Your task to perform on an android device: Do I have any events today? Image 0: 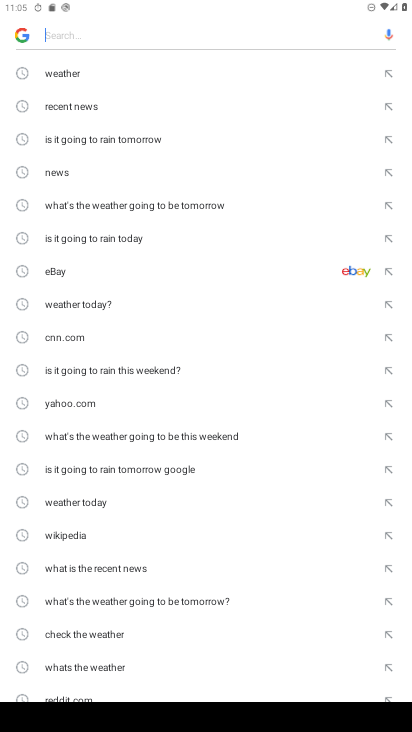
Step 0: press home button
Your task to perform on an android device: Do I have any events today? Image 1: 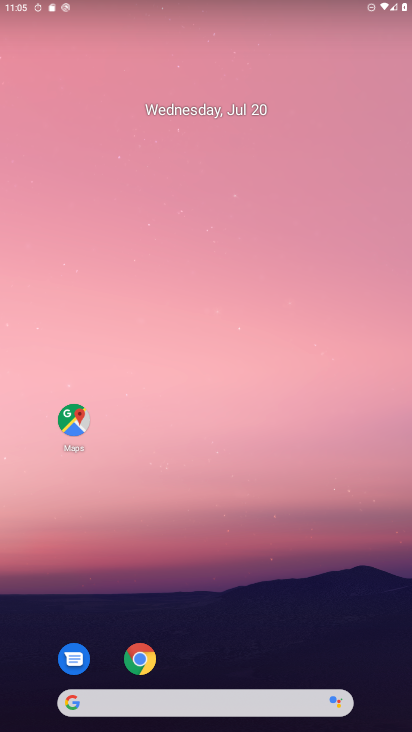
Step 1: drag from (298, 581) to (287, 11)
Your task to perform on an android device: Do I have any events today? Image 2: 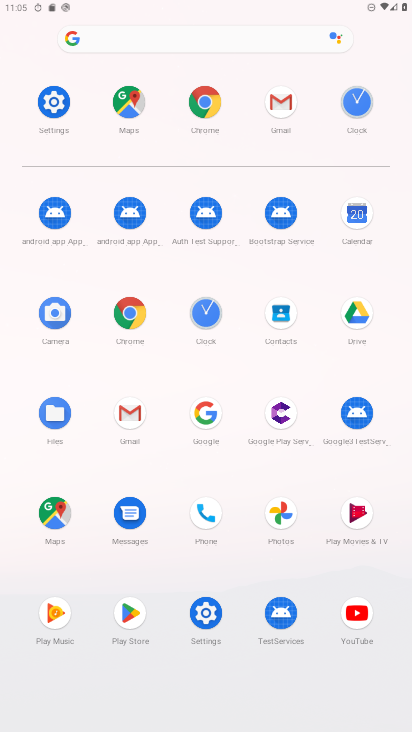
Step 2: click (354, 215)
Your task to perform on an android device: Do I have any events today? Image 3: 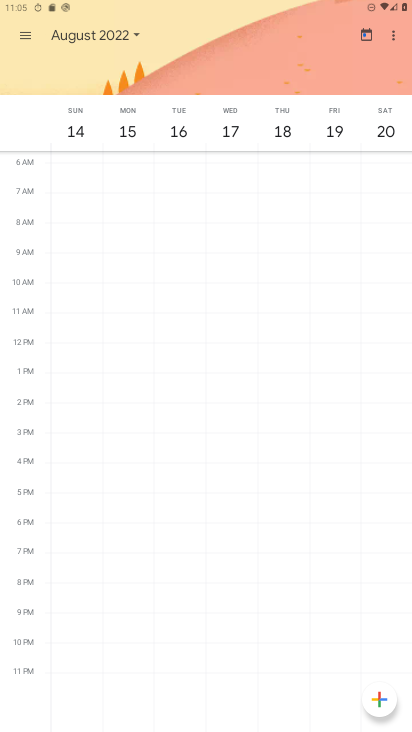
Step 3: click (73, 27)
Your task to perform on an android device: Do I have any events today? Image 4: 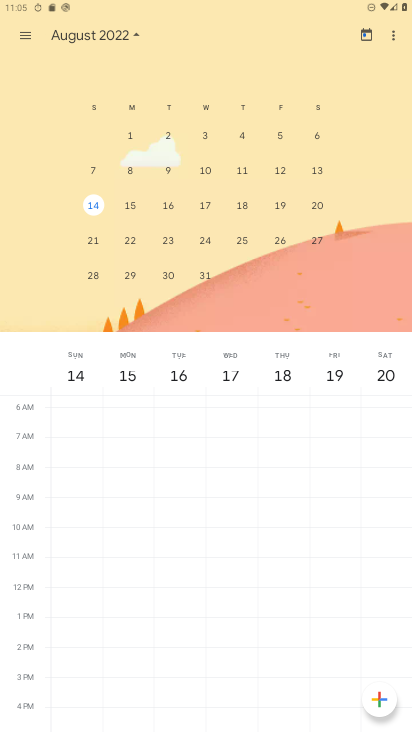
Step 4: drag from (60, 223) to (370, 186)
Your task to perform on an android device: Do I have any events today? Image 5: 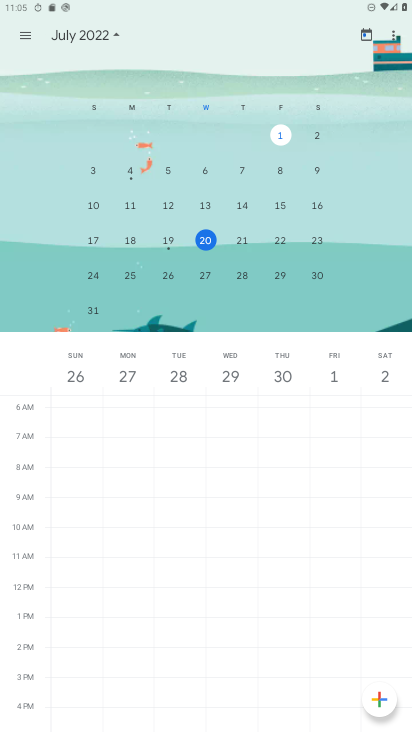
Step 5: click (207, 237)
Your task to perform on an android device: Do I have any events today? Image 6: 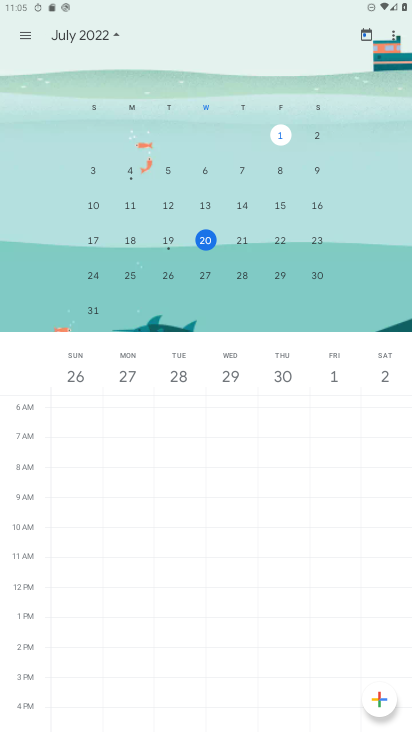
Step 6: click (206, 233)
Your task to perform on an android device: Do I have any events today? Image 7: 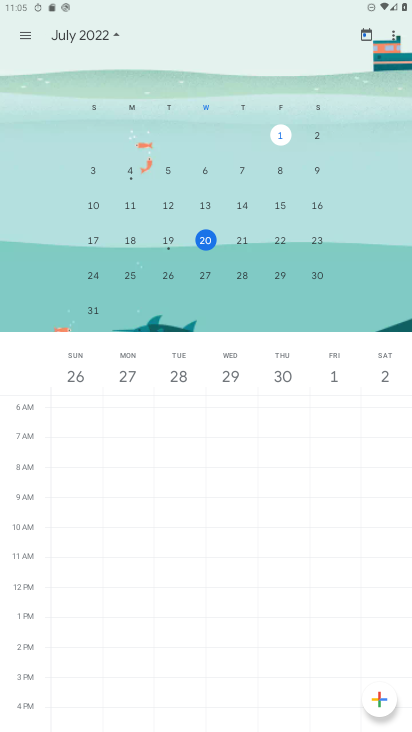
Step 7: click (205, 233)
Your task to perform on an android device: Do I have any events today? Image 8: 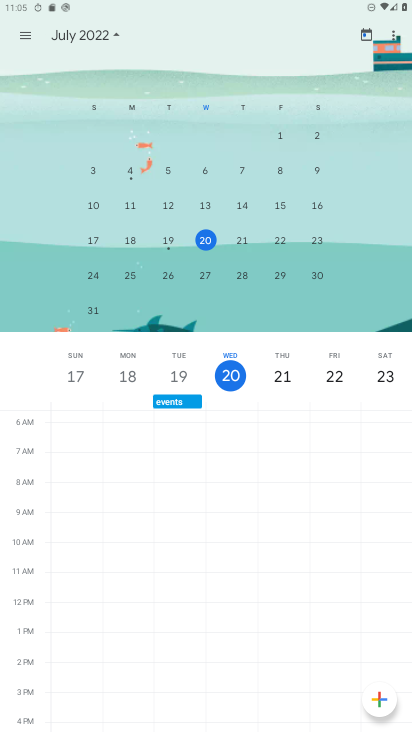
Step 8: click (205, 233)
Your task to perform on an android device: Do I have any events today? Image 9: 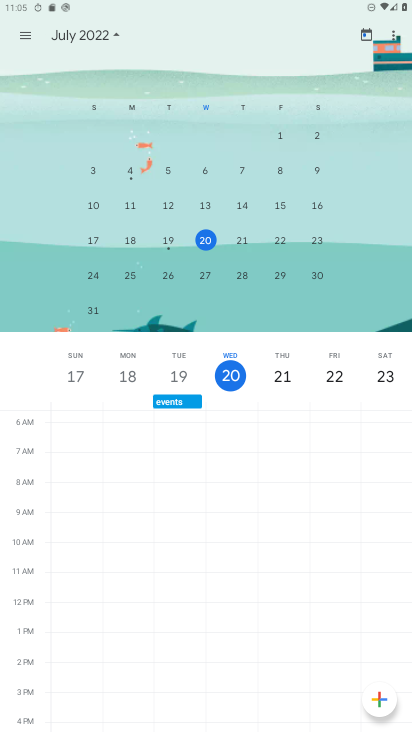
Step 9: click (225, 365)
Your task to perform on an android device: Do I have any events today? Image 10: 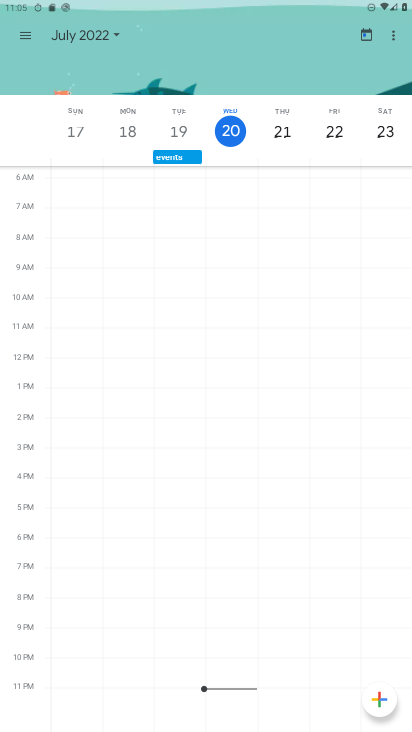
Step 10: click (236, 127)
Your task to perform on an android device: Do I have any events today? Image 11: 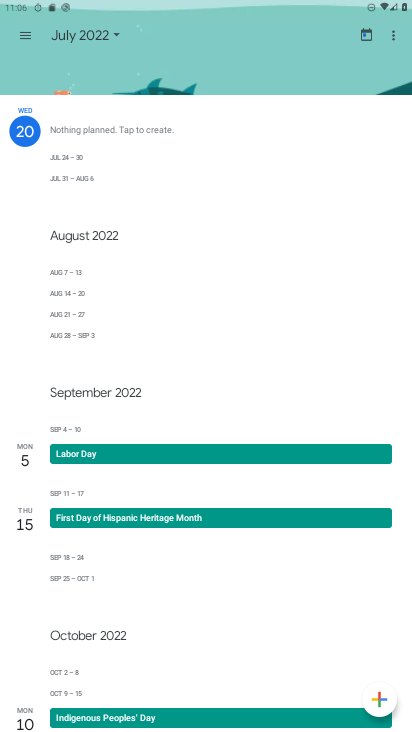
Step 11: task complete